Your task to perform on an android device: turn on sleep mode Image 0: 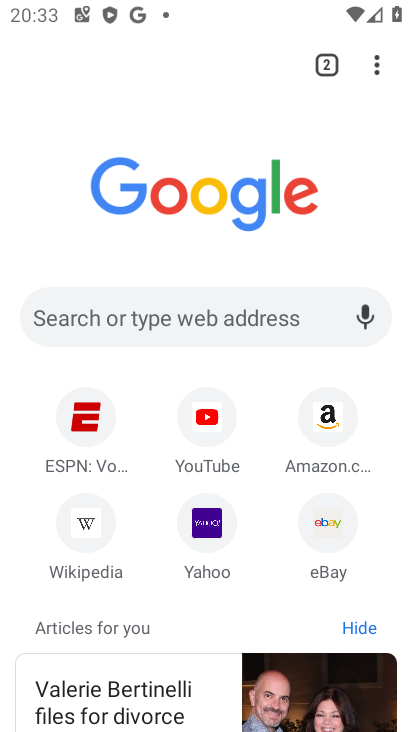
Step 0: press home button
Your task to perform on an android device: turn on sleep mode Image 1: 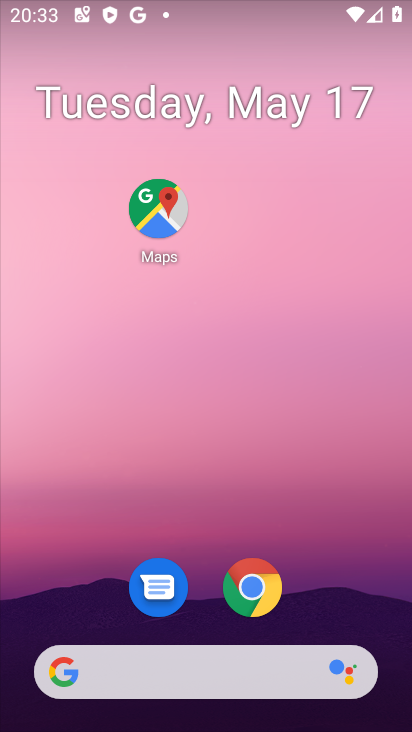
Step 1: drag from (18, 570) to (300, 111)
Your task to perform on an android device: turn on sleep mode Image 2: 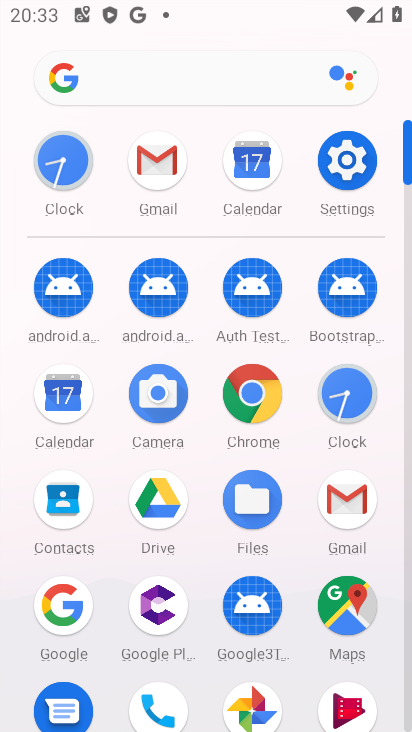
Step 2: click (357, 161)
Your task to perform on an android device: turn on sleep mode Image 3: 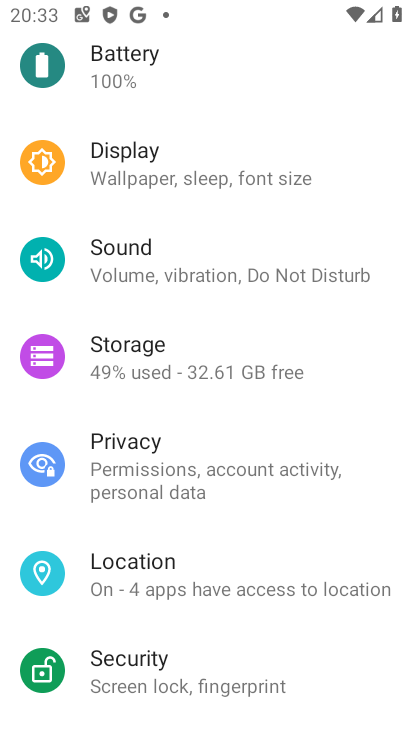
Step 3: click (190, 167)
Your task to perform on an android device: turn on sleep mode Image 4: 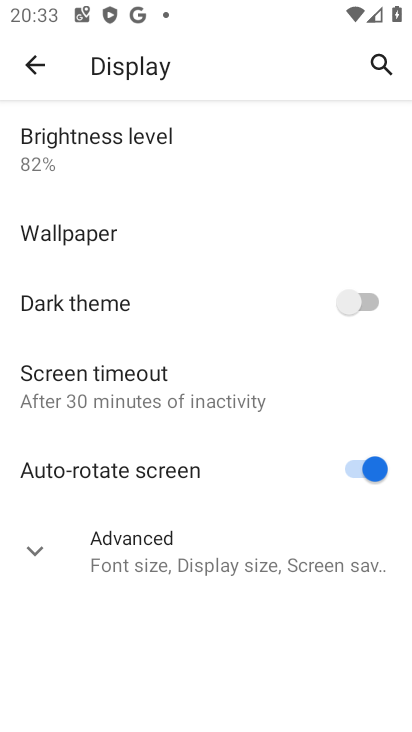
Step 4: task complete